Your task to perform on an android device: Go to sound settings Image 0: 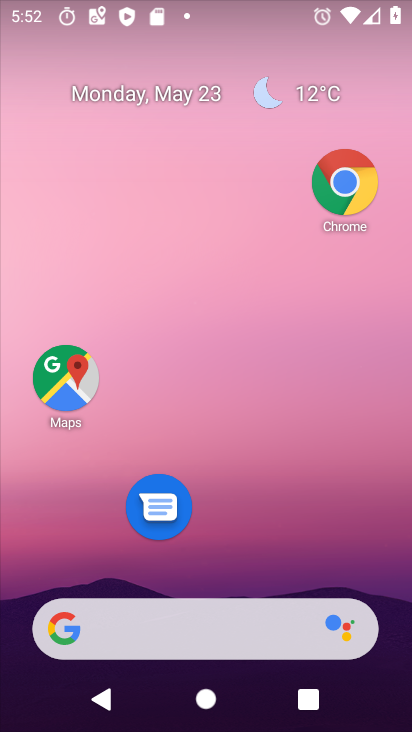
Step 0: drag from (213, 577) to (305, 109)
Your task to perform on an android device: Go to sound settings Image 1: 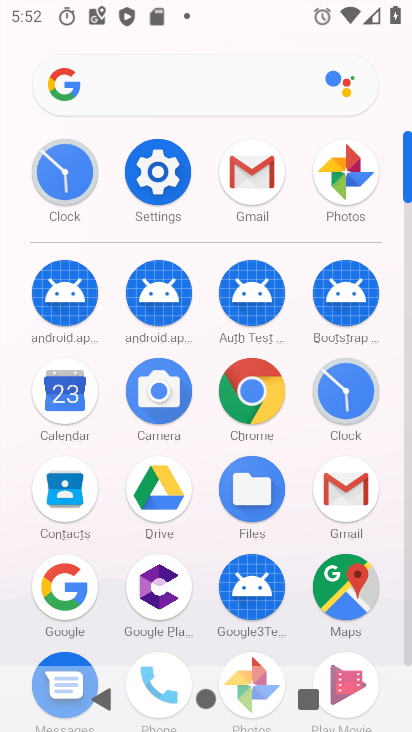
Step 1: click (156, 185)
Your task to perform on an android device: Go to sound settings Image 2: 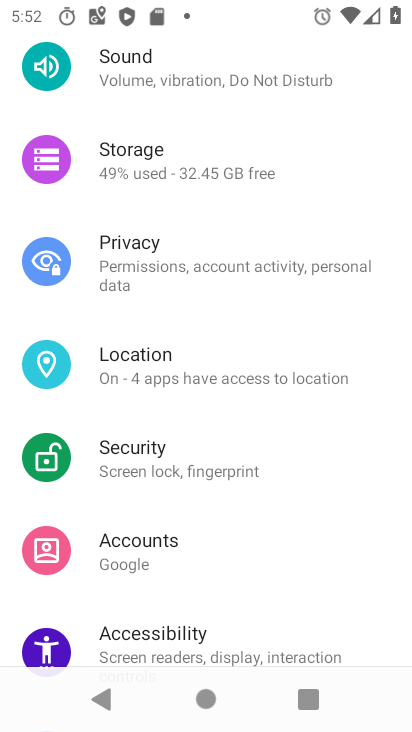
Step 2: click (177, 81)
Your task to perform on an android device: Go to sound settings Image 3: 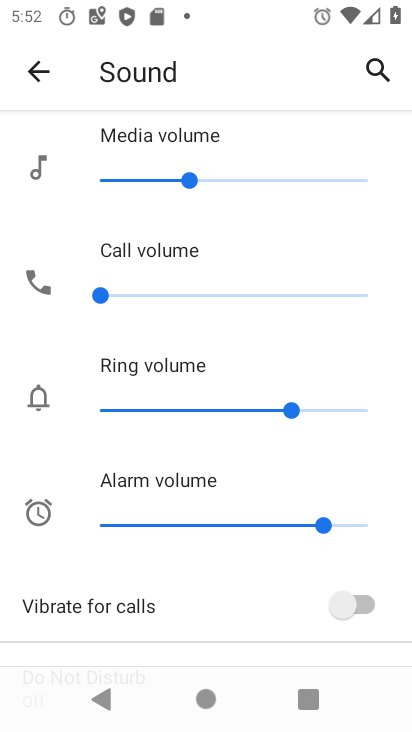
Step 3: task complete